Your task to perform on an android device: Show the shopping cart on walmart. Search for rayovac triple a on walmart, select the first entry, and add it to the cart. Image 0: 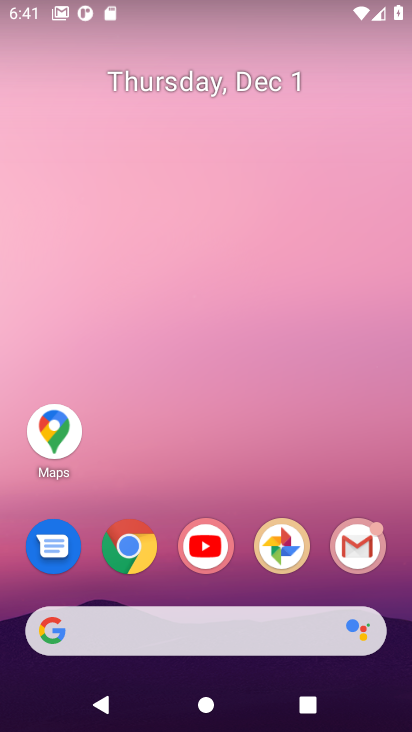
Step 0: click (122, 547)
Your task to perform on an android device: Show the shopping cart on walmart. Search for rayovac triple a on walmart, select the first entry, and add it to the cart. Image 1: 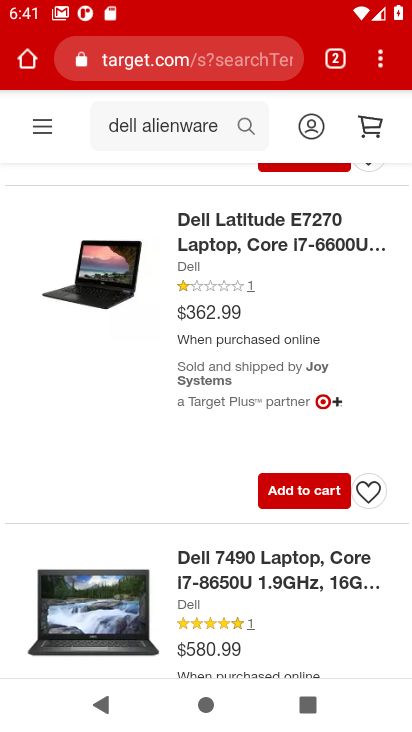
Step 1: click (151, 67)
Your task to perform on an android device: Show the shopping cart on walmart. Search for rayovac triple a on walmart, select the first entry, and add it to the cart. Image 2: 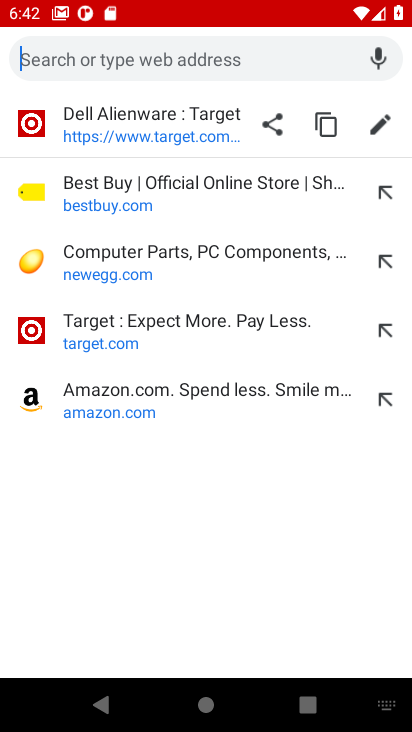
Step 2: type "walmart.com"
Your task to perform on an android device: Show the shopping cart on walmart. Search for rayovac triple a on walmart, select the first entry, and add it to the cart. Image 3: 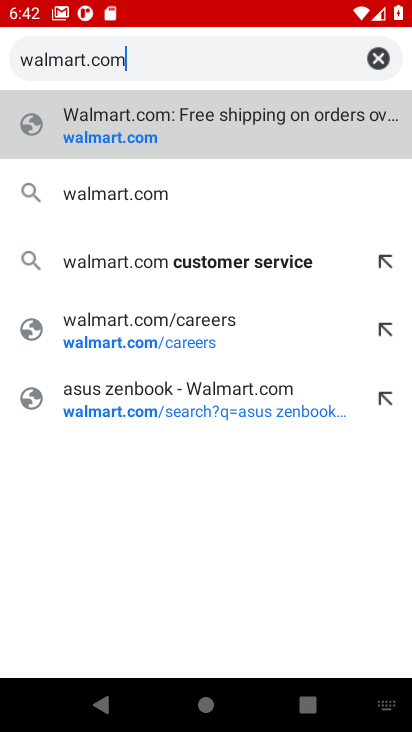
Step 3: click (113, 143)
Your task to perform on an android device: Show the shopping cart on walmart. Search for rayovac triple a on walmart, select the first entry, and add it to the cart. Image 4: 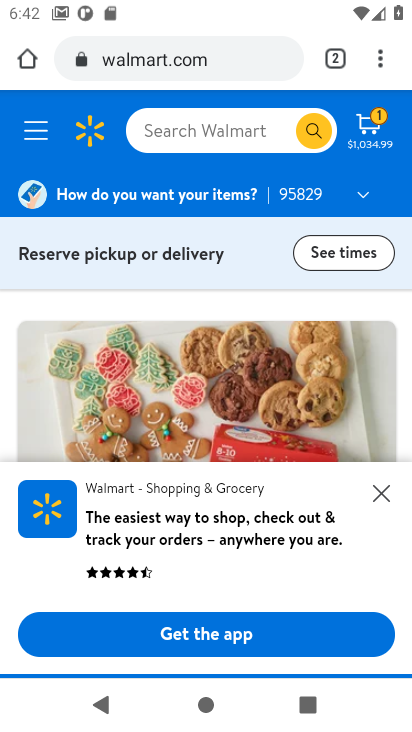
Step 4: click (370, 122)
Your task to perform on an android device: Show the shopping cart on walmart. Search for rayovac triple a on walmart, select the first entry, and add it to the cart. Image 5: 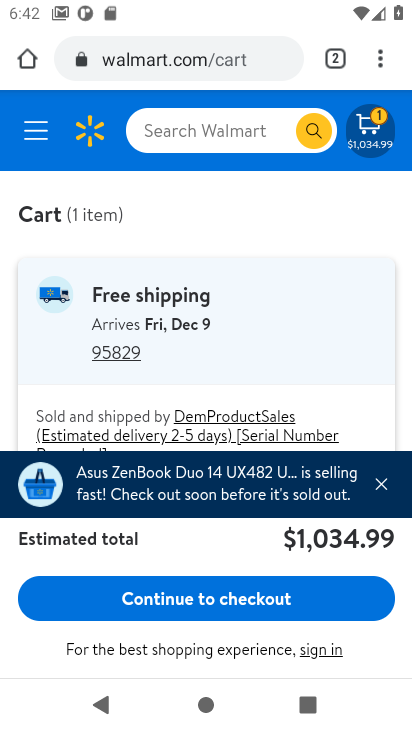
Step 5: drag from (278, 395) to (287, 276)
Your task to perform on an android device: Show the shopping cart on walmart. Search for rayovac triple a on walmart, select the first entry, and add it to the cart. Image 6: 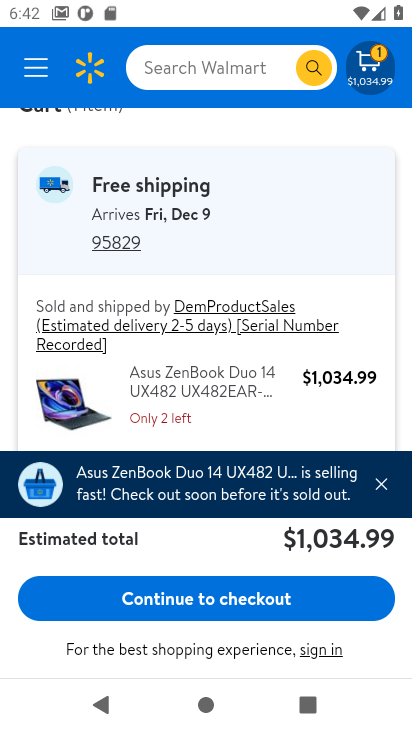
Step 6: click (168, 69)
Your task to perform on an android device: Show the shopping cart on walmart. Search for rayovac triple a on walmart, select the first entry, and add it to the cart. Image 7: 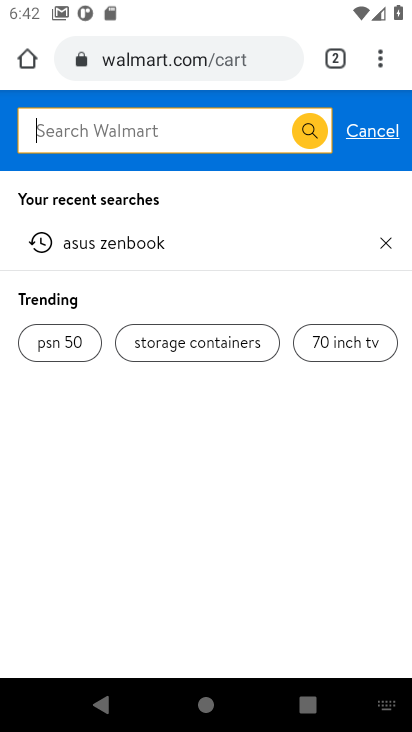
Step 7: type "rayovac triple a "
Your task to perform on an android device: Show the shopping cart on walmart. Search for rayovac triple a on walmart, select the first entry, and add it to the cart. Image 8: 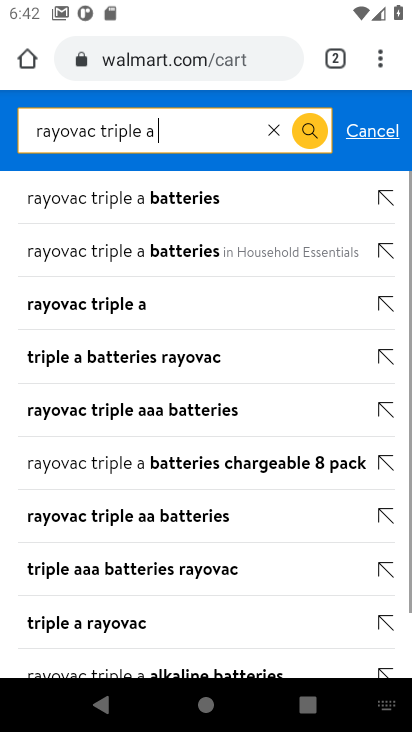
Step 8: click (108, 198)
Your task to perform on an android device: Show the shopping cart on walmart. Search for rayovac triple a on walmart, select the first entry, and add it to the cart. Image 9: 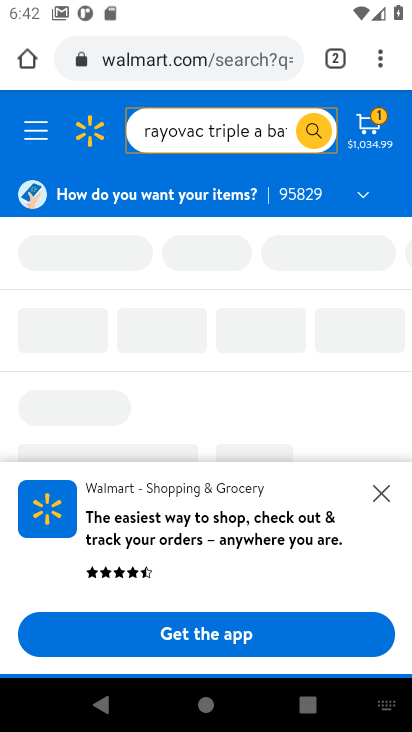
Step 9: click (385, 488)
Your task to perform on an android device: Show the shopping cart on walmart. Search for rayovac triple a on walmart, select the first entry, and add it to the cart. Image 10: 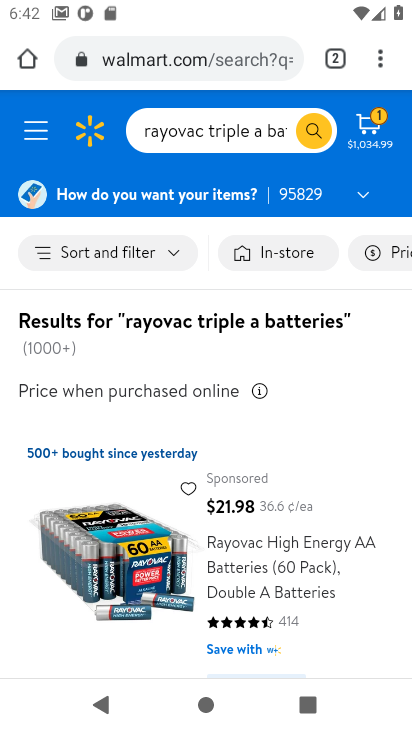
Step 10: task complete